Your task to perform on an android device: View the shopping cart on costco.com. Search for "usb-c to usb-b" on costco.com, select the first entry, add it to the cart, then select checkout. Image 0: 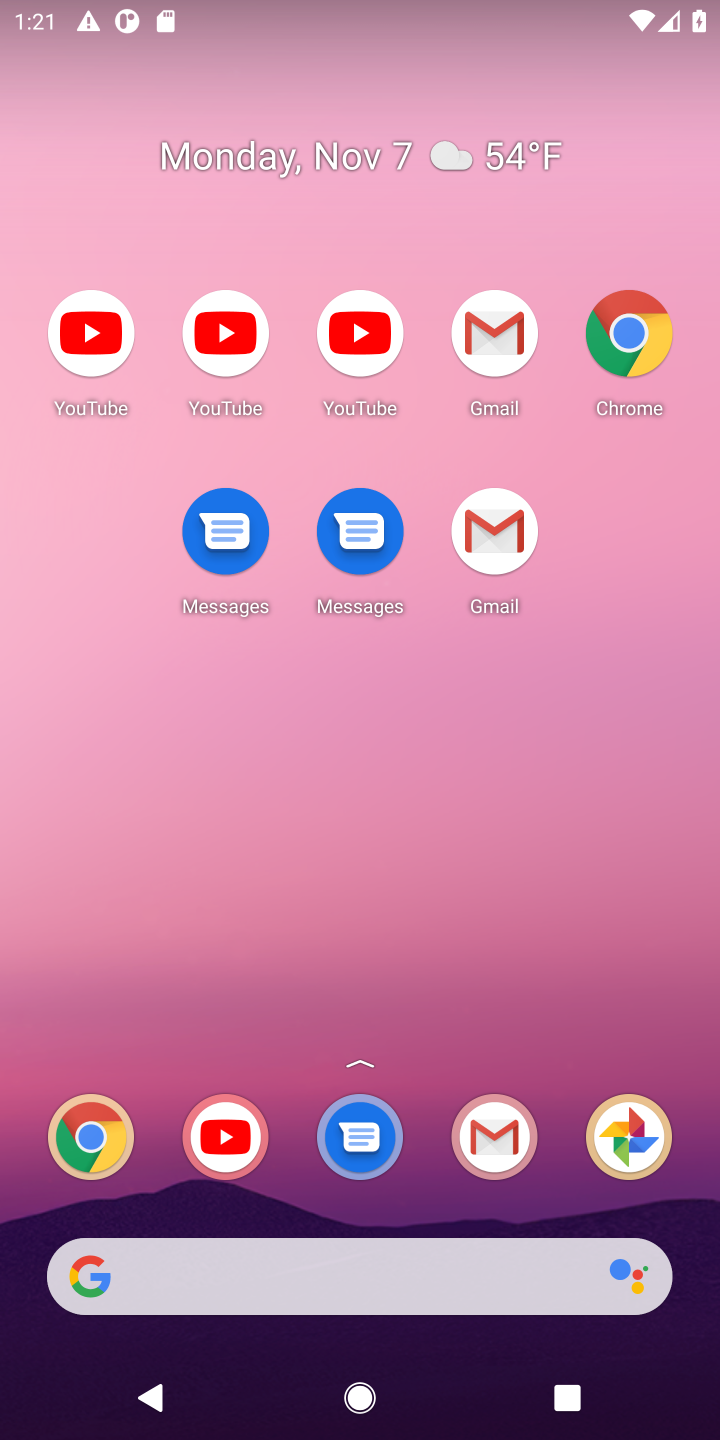
Step 0: press home button
Your task to perform on an android device: View the shopping cart on costco.com. Search for "usb-c to usb-b" on costco.com, select the first entry, add it to the cart, then select checkout. Image 1: 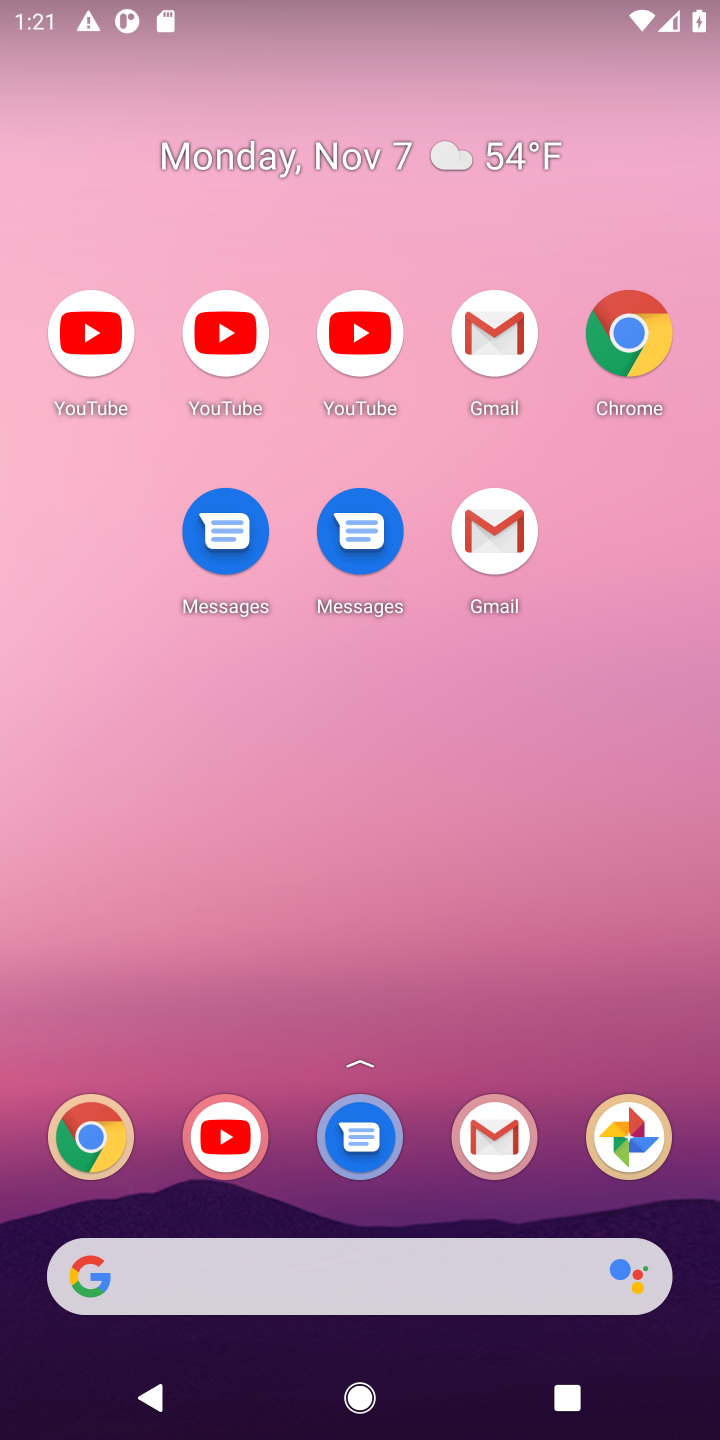
Step 1: drag from (436, 923) to (408, 66)
Your task to perform on an android device: View the shopping cart on costco.com. Search for "usb-c to usb-b" on costco.com, select the first entry, add it to the cart, then select checkout. Image 2: 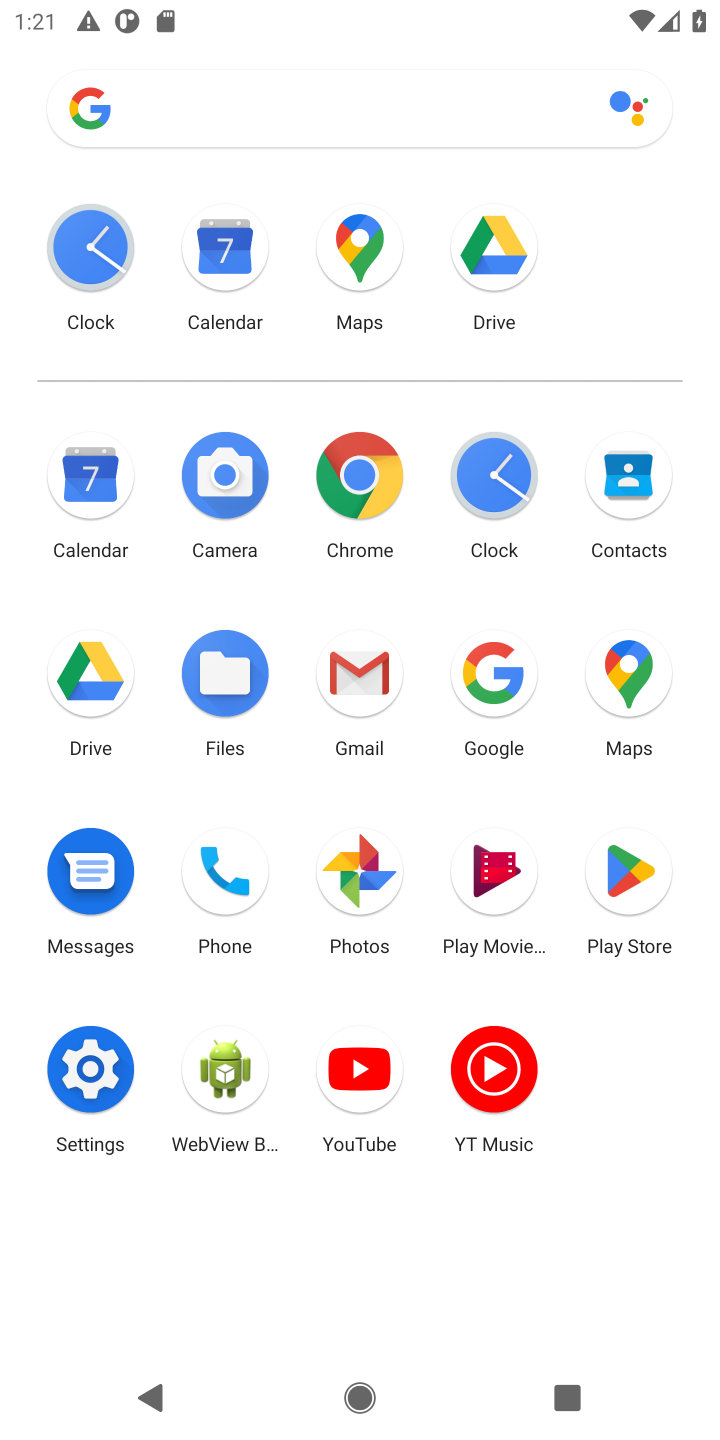
Step 2: click (353, 469)
Your task to perform on an android device: View the shopping cart on costco.com. Search for "usb-c to usb-b" on costco.com, select the first entry, add it to the cart, then select checkout. Image 3: 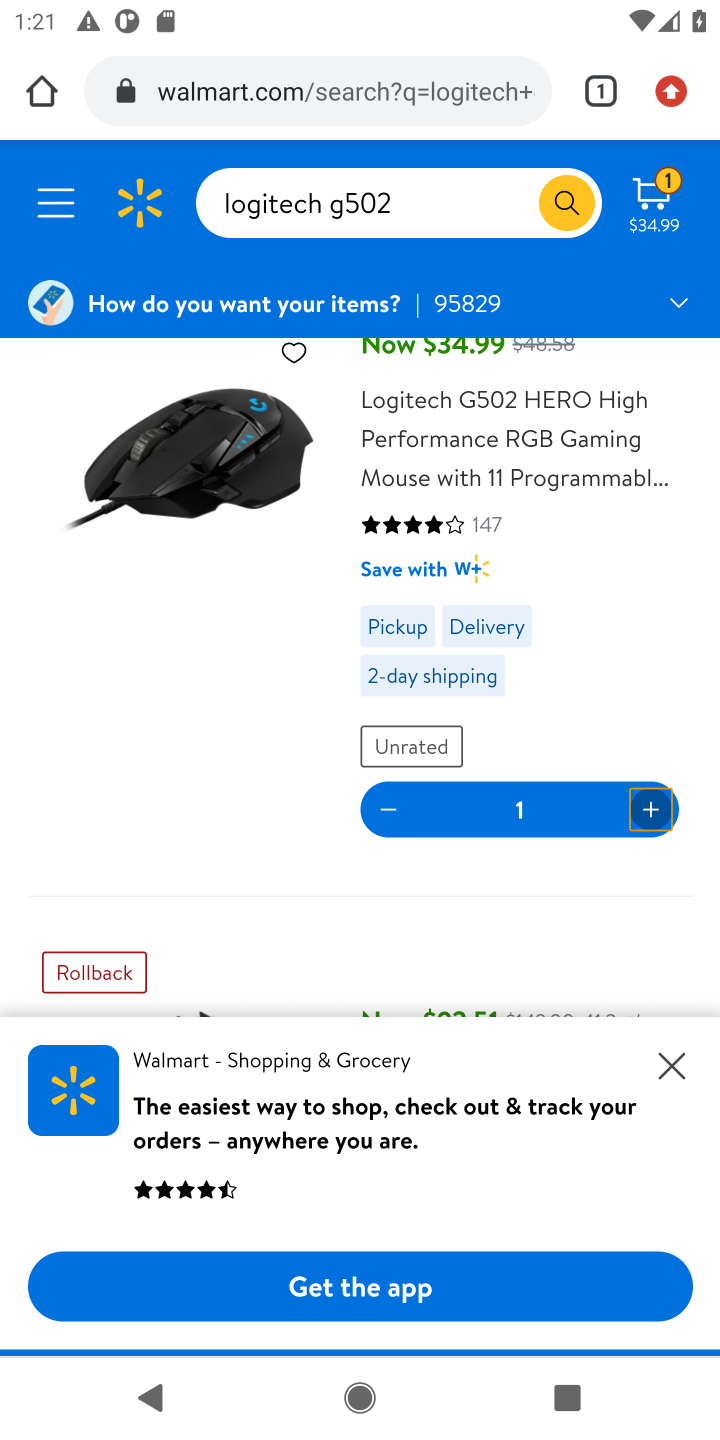
Step 3: click (358, 91)
Your task to perform on an android device: View the shopping cart on costco.com. Search for "usb-c to usb-b" on costco.com, select the first entry, add it to the cart, then select checkout. Image 4: 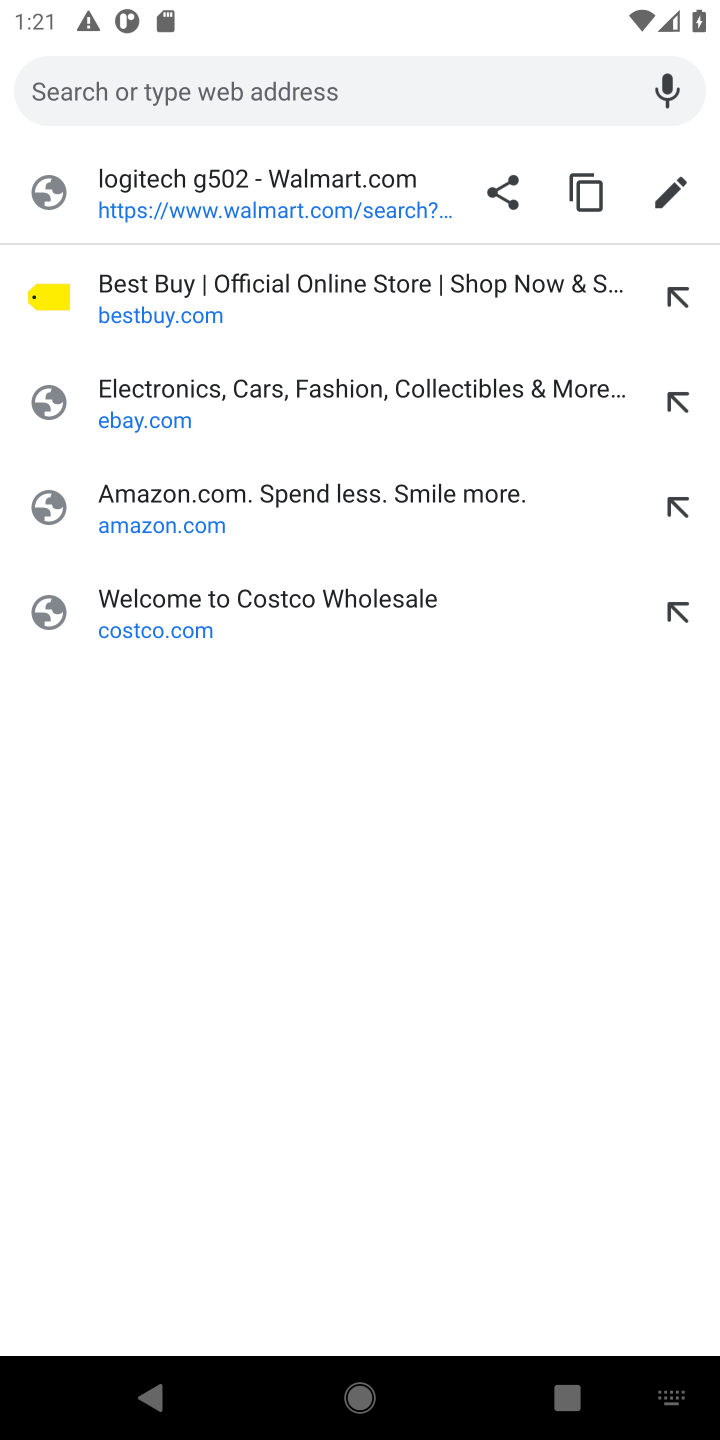
Step 4: type "costco.com"
Your task to perform on an android device: View the shopping cart on costco.com. Search for "usb-c to usb-b" on costco.com, select the first entry, add it to the cart, then select checkout. Image 5: 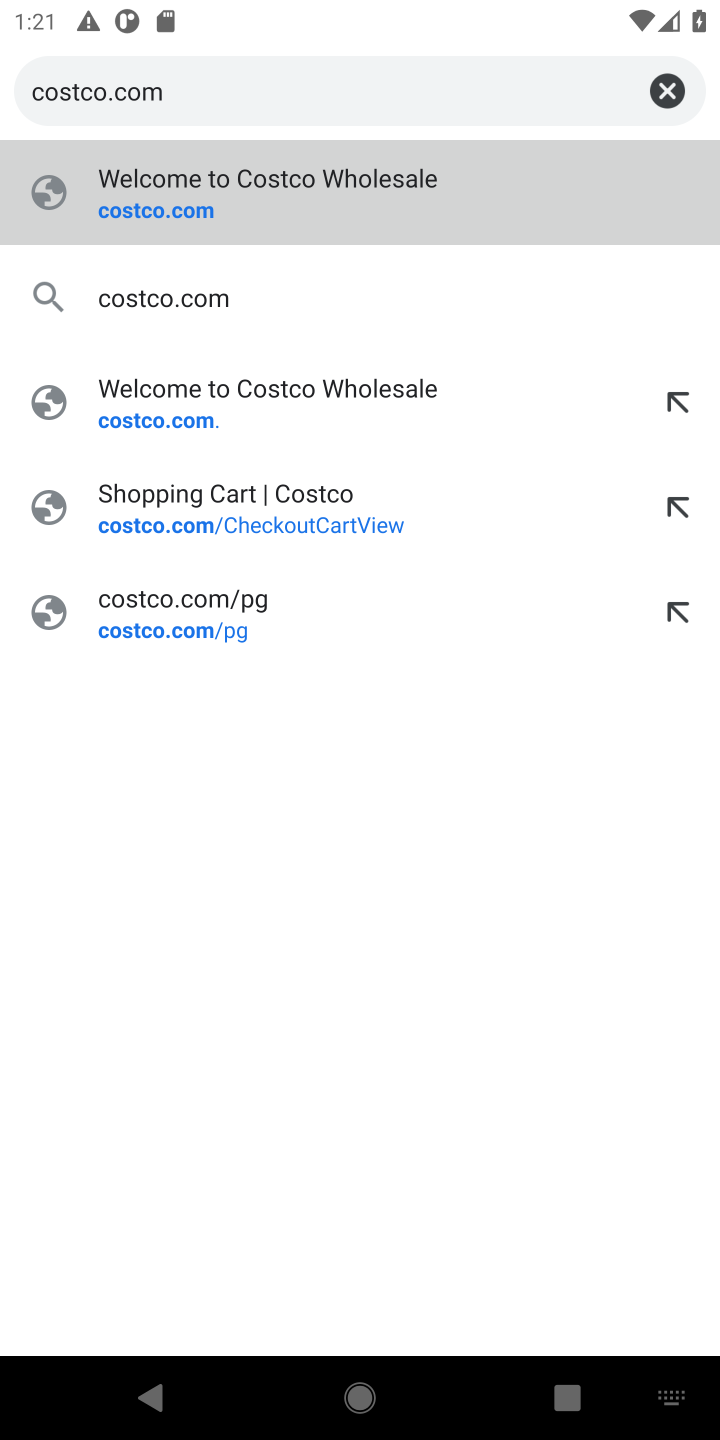
Step 5: press enter
Your task to perform on an android device: View the shopping cart on costco.com. Search for "usb-c to usb-b" on costco.com, select the first entry, add it to the cart, then select checkout. Image 6: 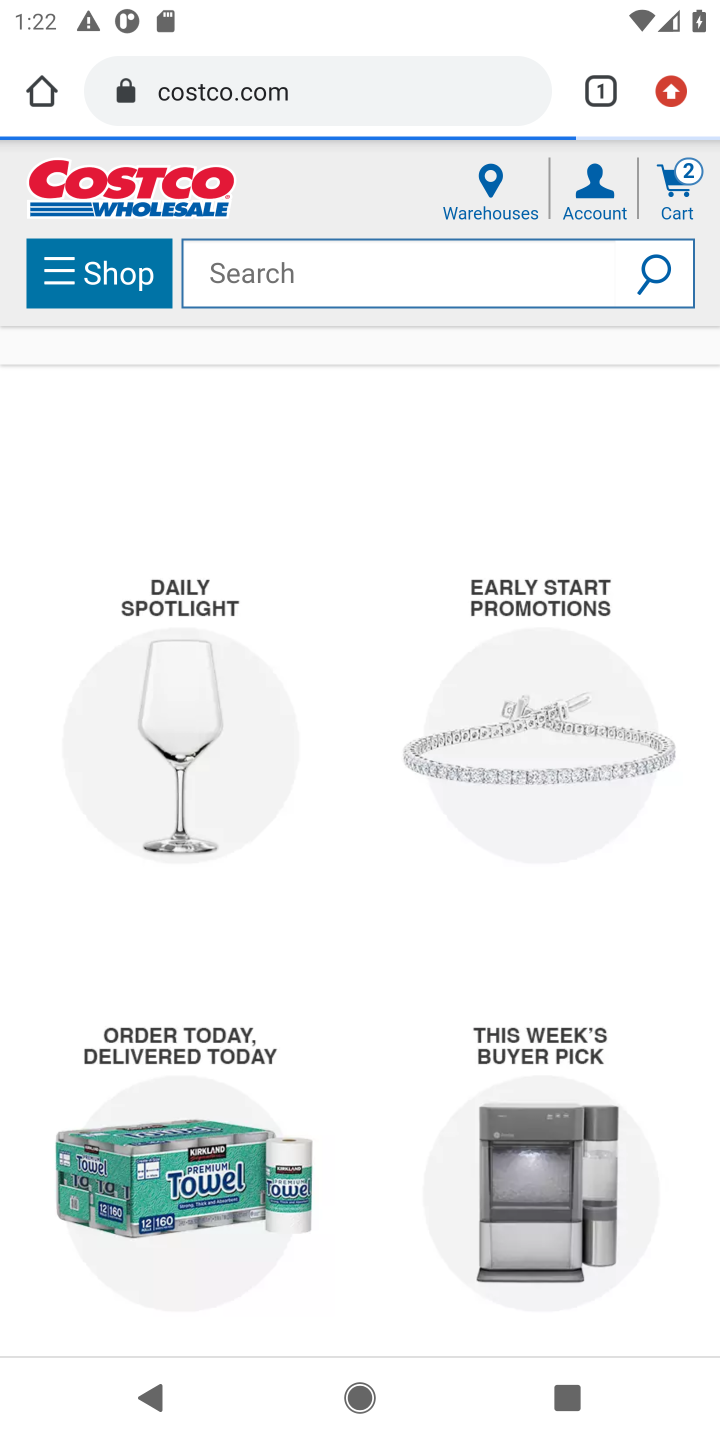
Step 6: click (675, 176)
Your task to perform on an android device: View the shopping cart on costco.com. Search for "usb-c to usb-b" on costco.com, select the first entry, add it to the cart, then select checkout. Image 7: 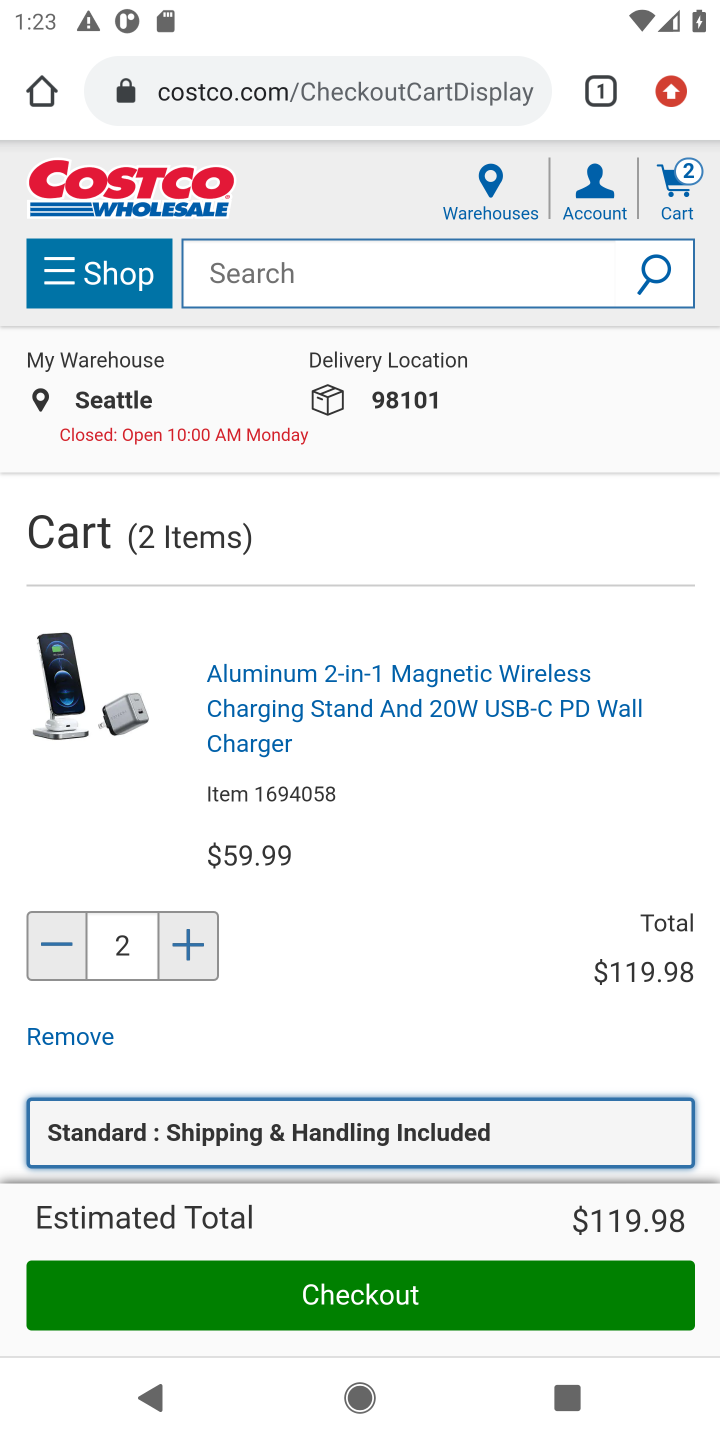
Step 7: click (405, 269)
Your task to perform on an android device: View the shopping cart on costco.com. Search for "usb-c to usb-b" on costco.com, select the first entry, add it to the cart, then select checkout. Image 8: 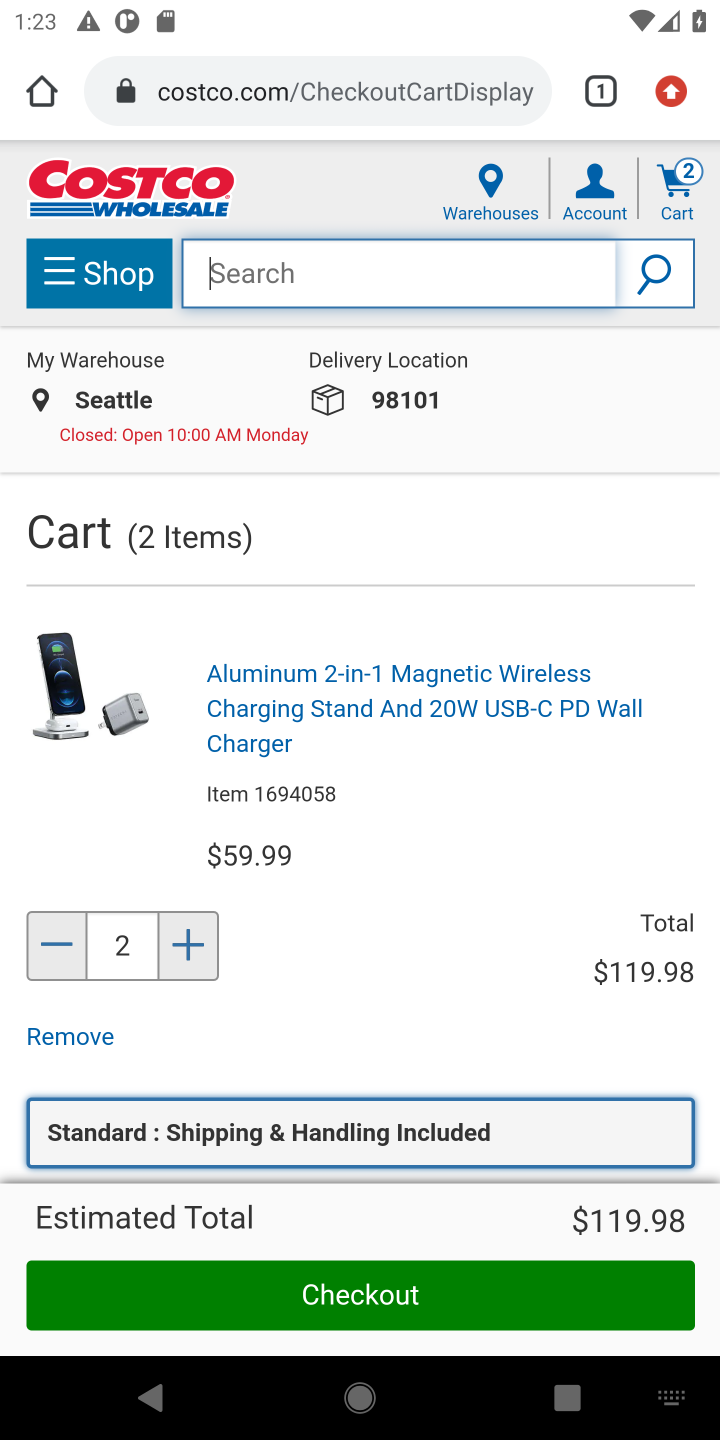
Step 8: type "usb-c to usb-b"
Your task to perform on an android device: View the shopping cart on costco.com. Search for "usb-c to usb-b" on costco.com, select the first entry, add it to the cart, then select checkout. Image 9: 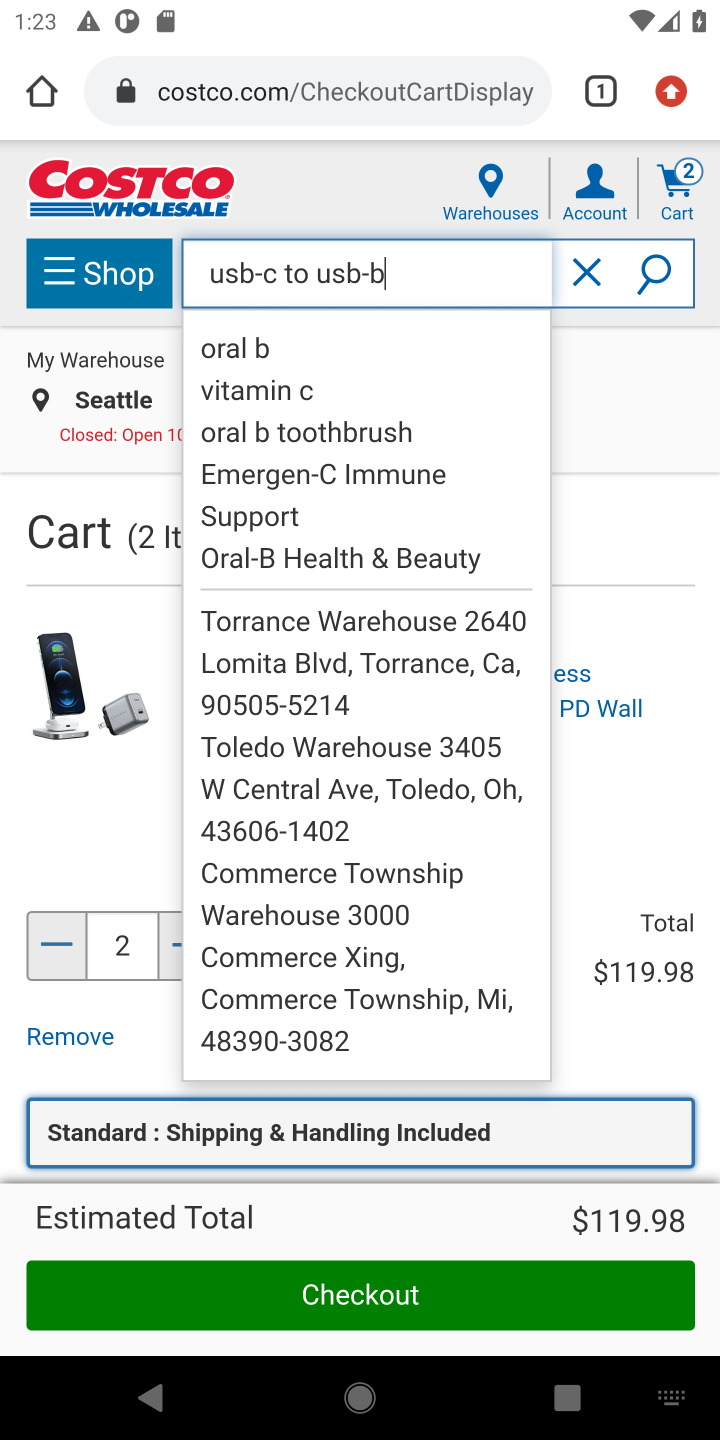
Step 9: press enter
Your task to perform on an android device: View the shopping cart on costco.com. Search for "usb-c to usb-b" on costco.com, select the first entry, add it to the cart, then select checkout. Image 10: 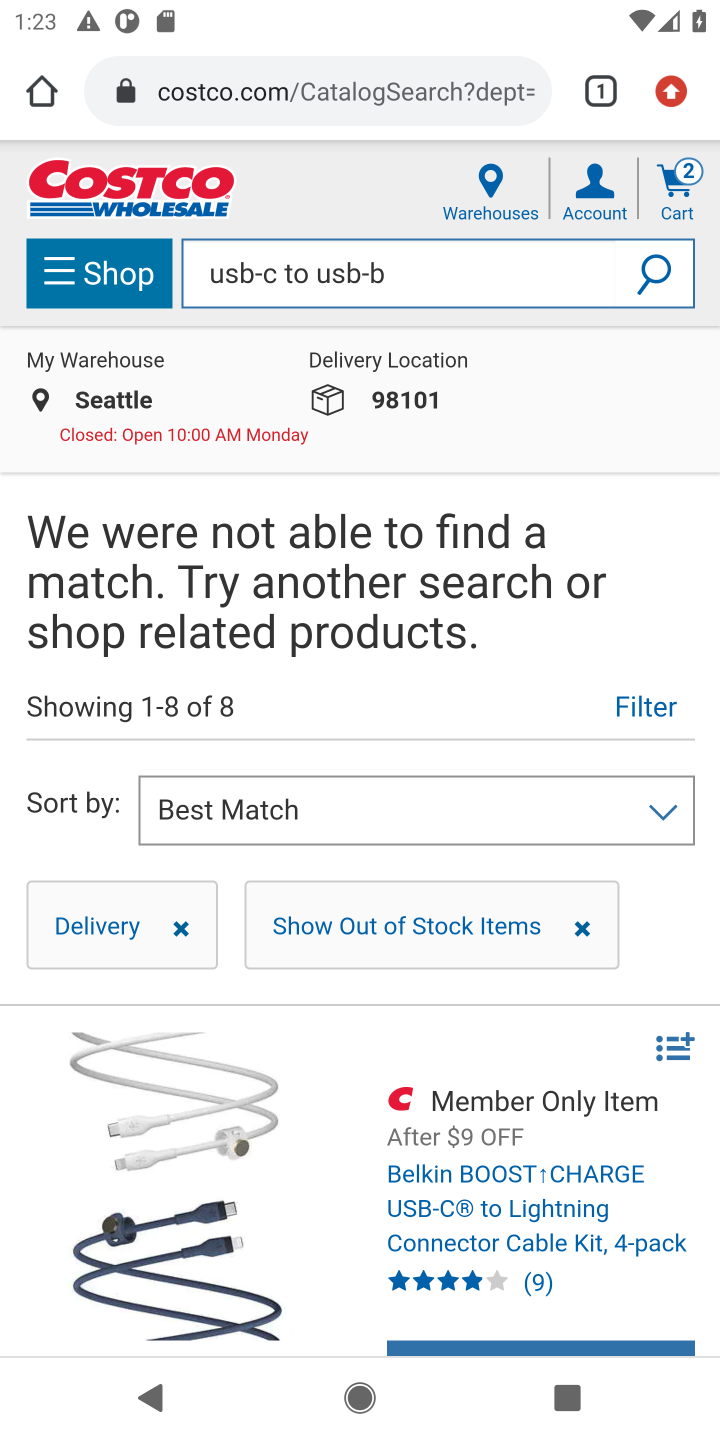
Step 10: task complete